Your task to perform on an android device: set the timer Image 0: 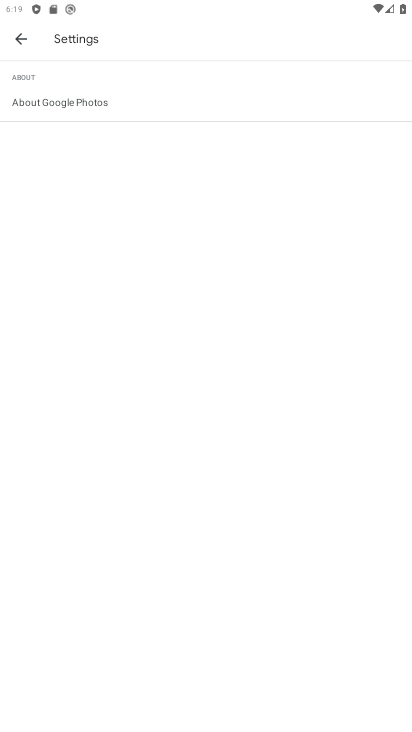
Step 0: press home button
Your task to perform on an android device: set the timer Image 1: 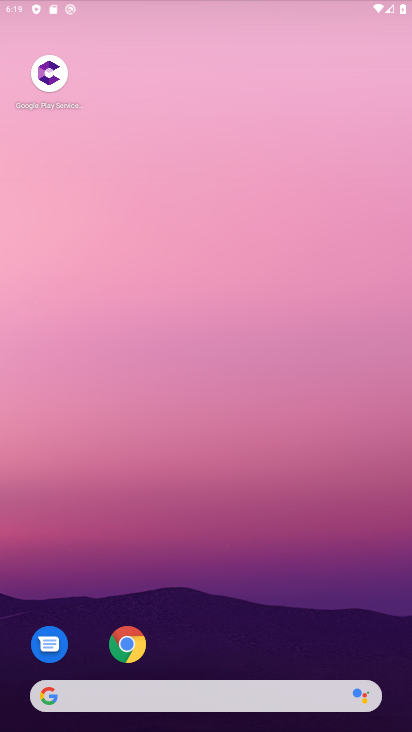
Step 1: drag from (337, 638) to (325, 5)
Your task to perform on an android device: set the timer Image 2: 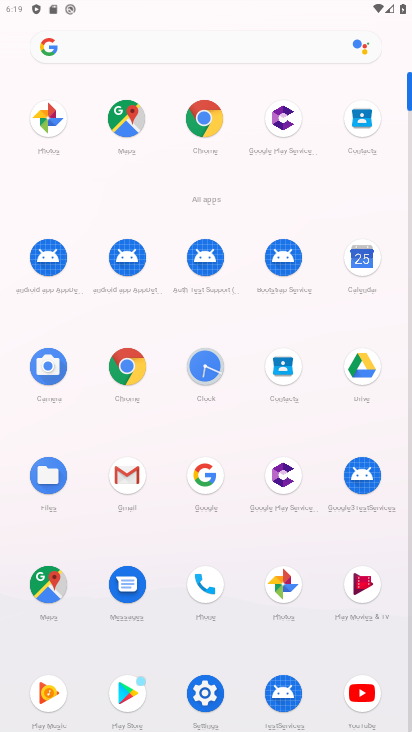
Step 2: click (192, 358)
Your task to perform on an android device: set the timer Image 3: 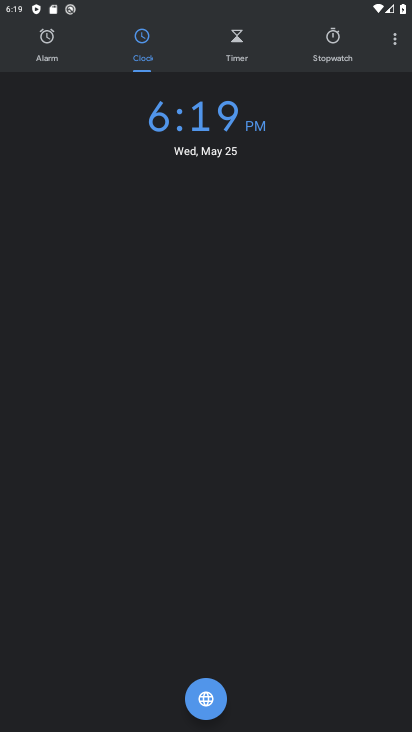
Step 3: click (385, 49)
Your task to perform on an android device: set the timer Image 4: 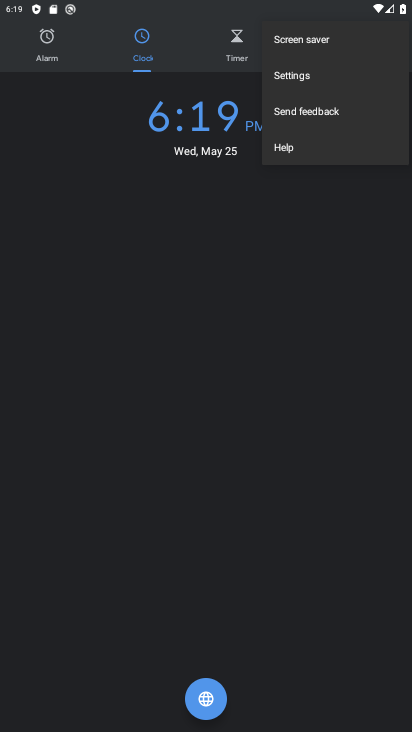
Step 4: click (314, 77)
Your task to perform on an android device: set the timer Image 5: 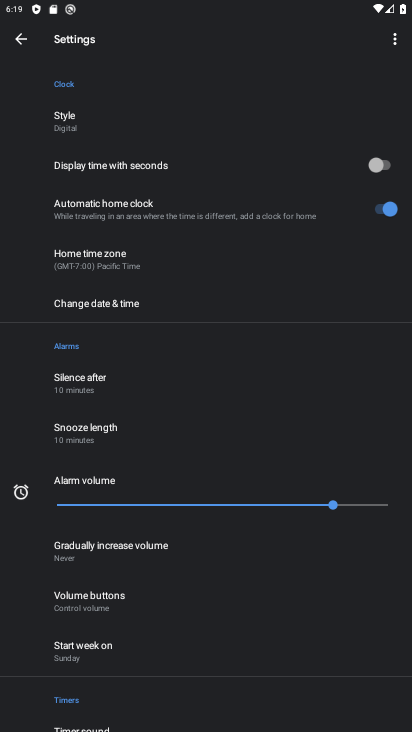
Step 5: click (115, 264)
Your task to perform on an android device: set the timer Image 6: 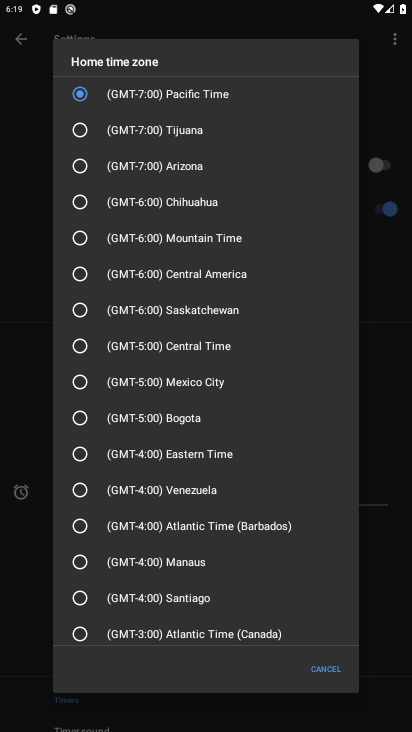
Step 6: click (120, 273)
Your task to perform on an android device: set the timer Image 7: 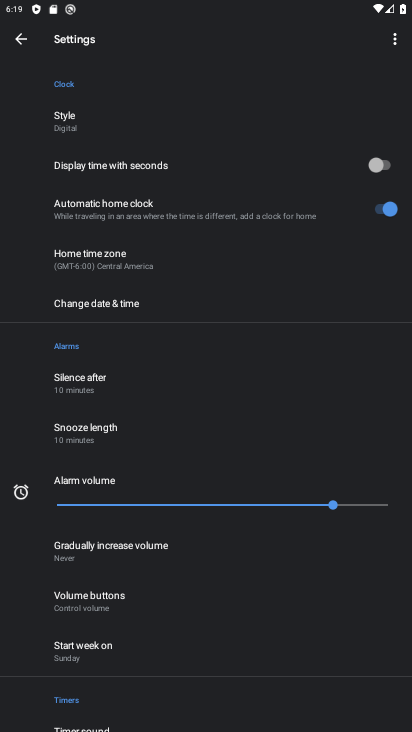
Step 7: task complete